Your task to perform on an android device: uninstall "Gmail" Image 0: 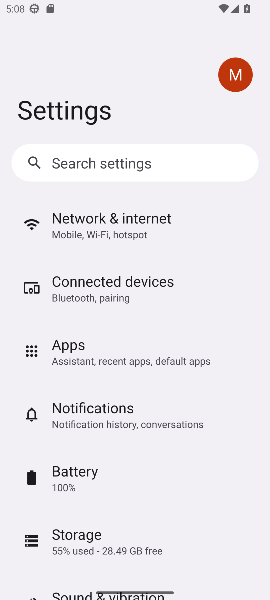
Step 0: press home button
Your task to perform on an android device: uninstall "Gmail" Image 1: 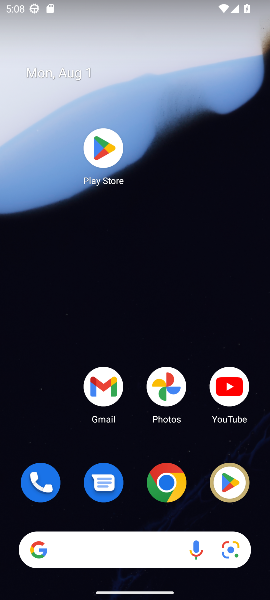
Step 1: click (98, 148)
Your task to perform on an android device: uninstall "Gmail" Image 2: 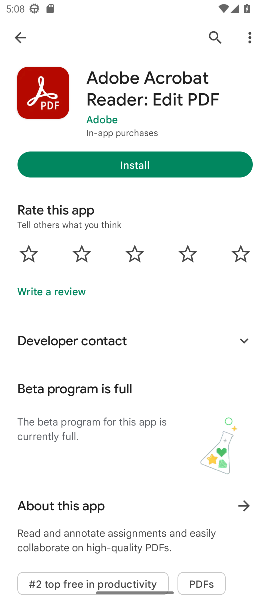
Step 2: click (216, 35)
Your task to perform on an android device: uninstall "Gmail" Image 3: 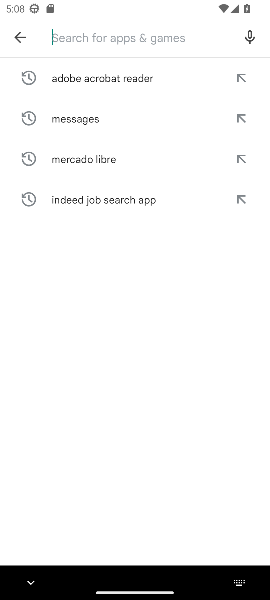
Step 3: type "Gmail"
Your task to perform on an android device: uninstall "Gmail" Image 4: 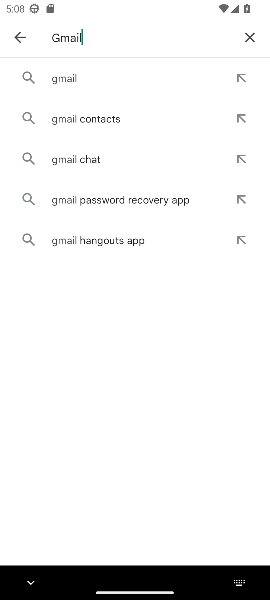
Step 4: click (94, 65)
Your task to perform on an android device: uninstall "Gmail" Image 5: 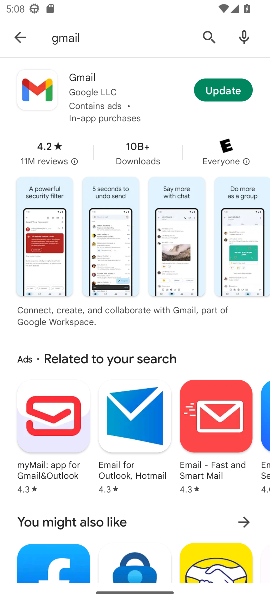
Step 5: click (72, 94)
Your task to perform on an android device: uninstall "Gmail" Image 6: 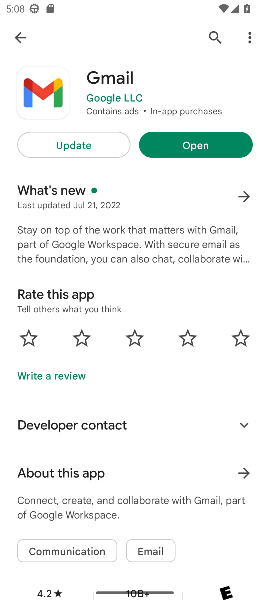
Step 6: task complete